Your task to perform on an android device: check data usage Image 0: 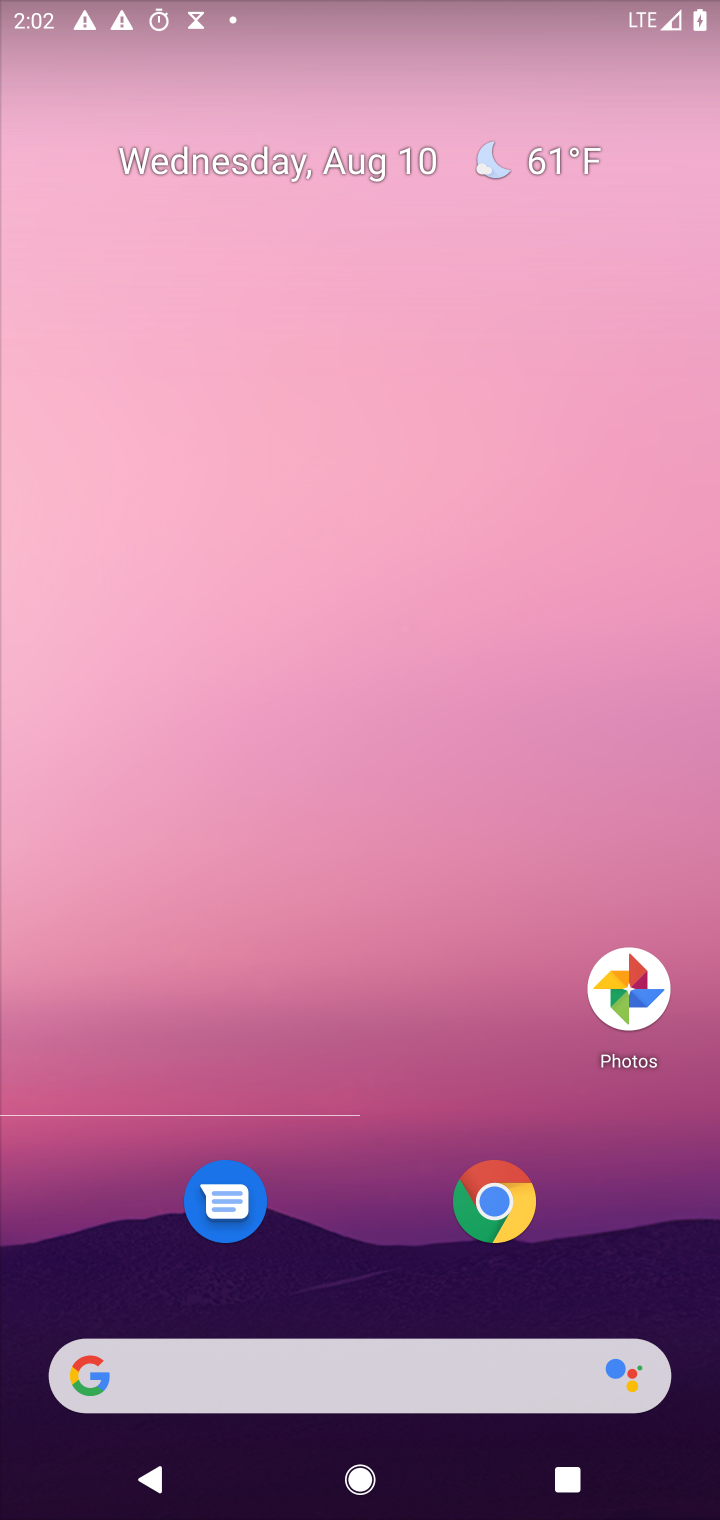
Step 0: press home button
Your task to perform on an android device: check data usage Image 1: 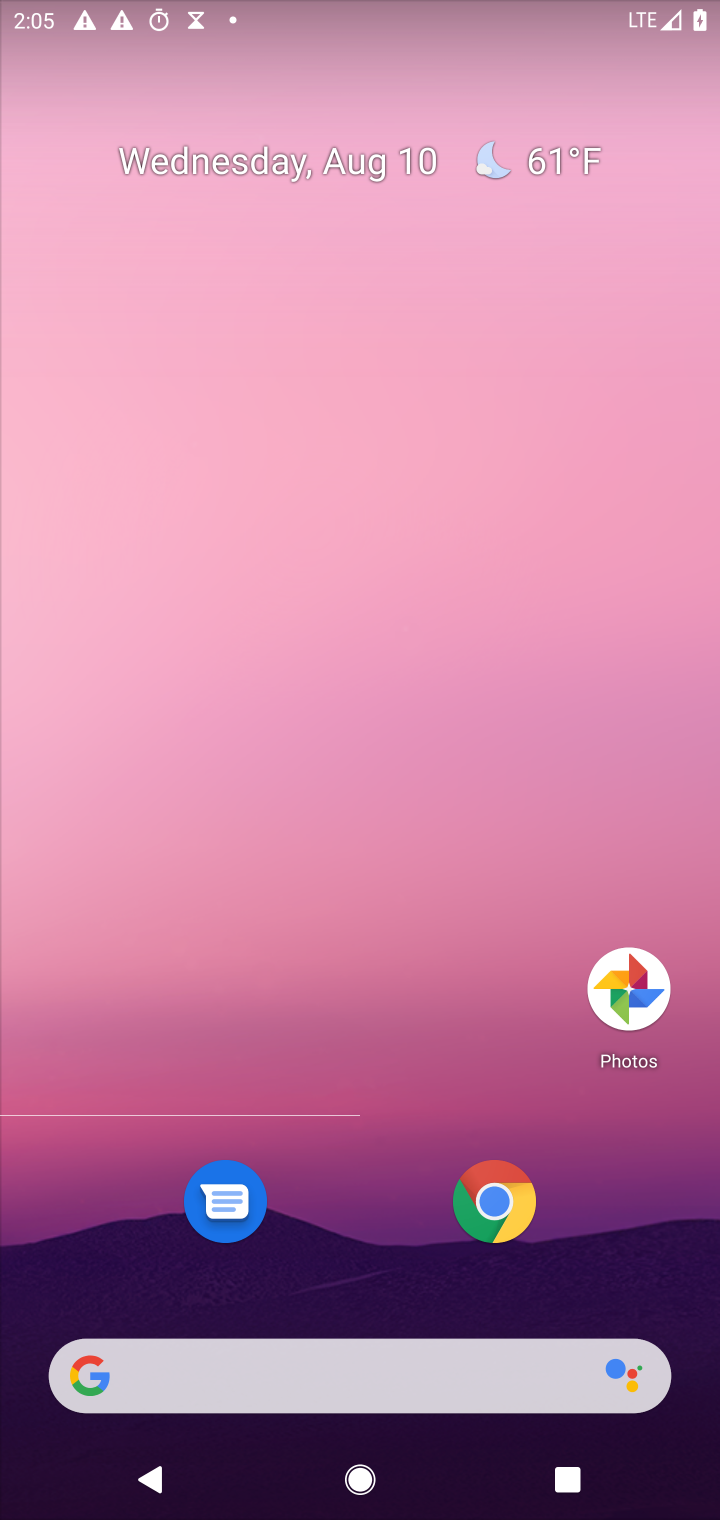
Step 1: drag from (276, 1060) to (144, 80)
Your task to perform on an android device: check data usage Image 2: 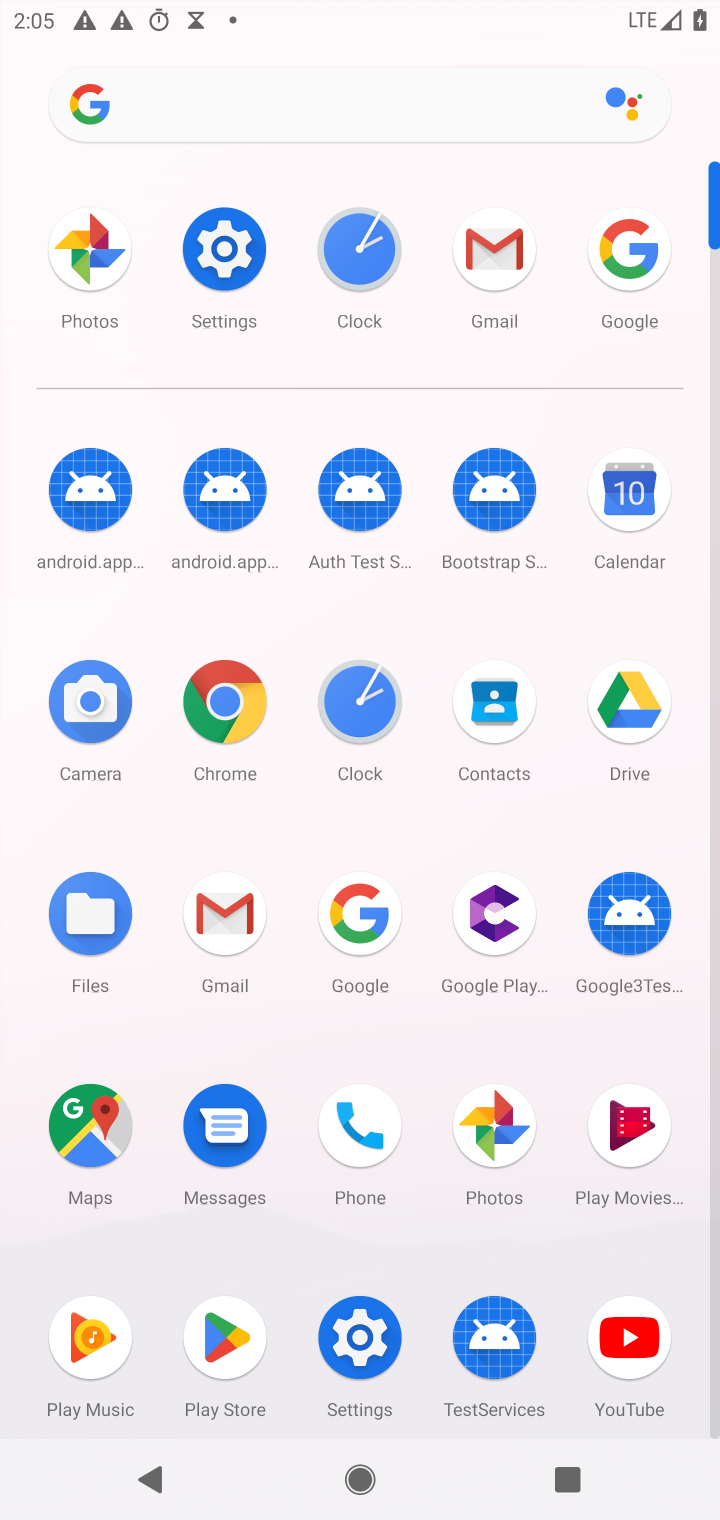
Step 2: click (224, 296)
Your task to perform on an android device: check data usage Image 3: 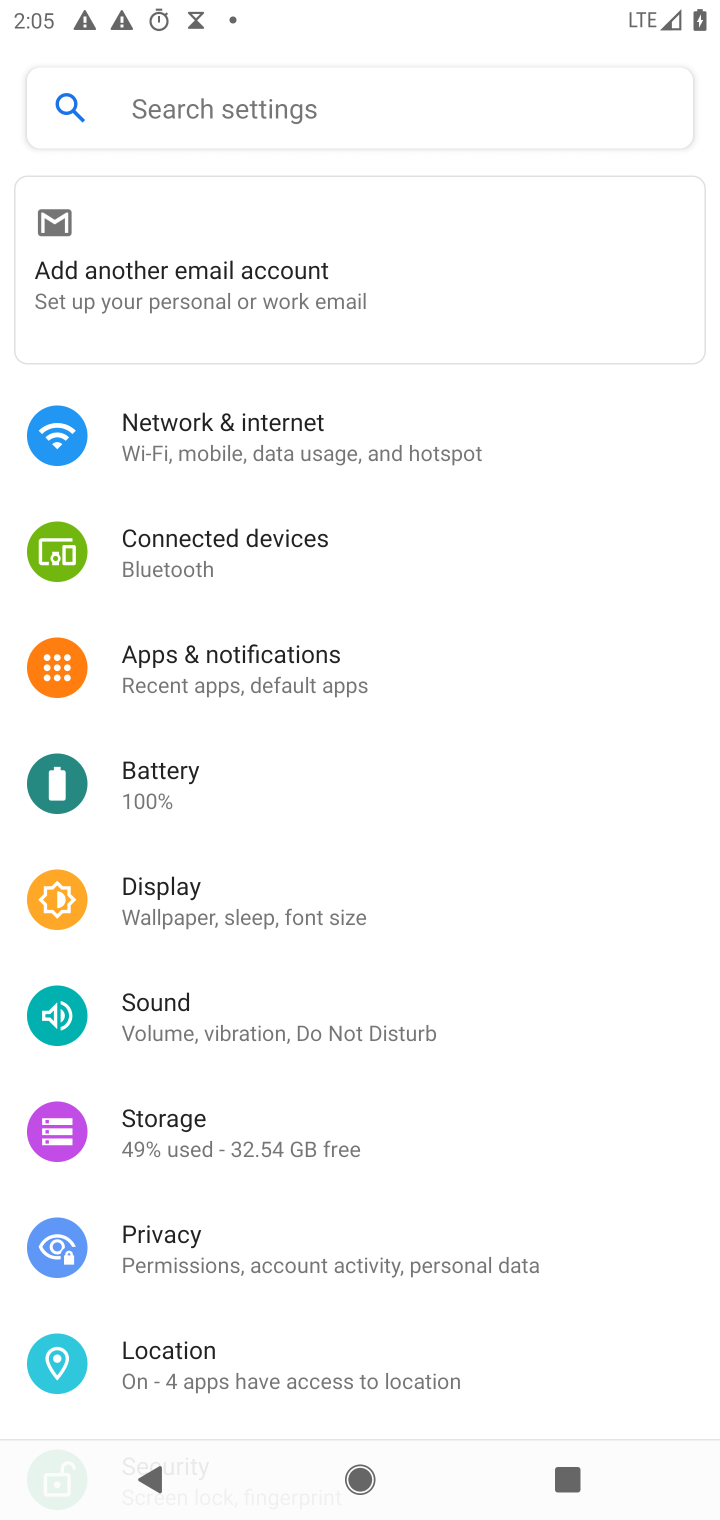
Step 3: click (244, 439)
Your task to perform on an android device: check data usage Image 4: 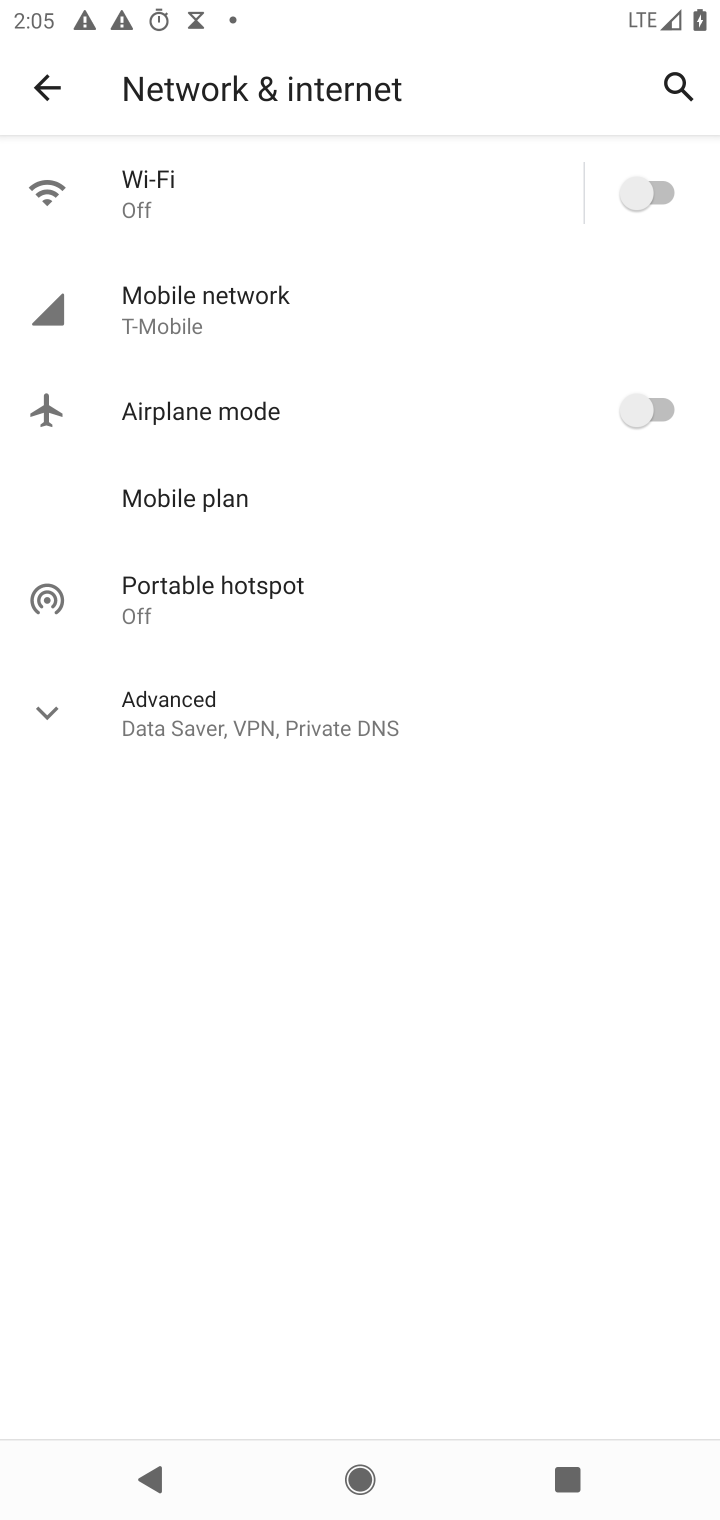
Step 4: click (214, 309)
Your task to perform on an android device: check data usage Image 5: 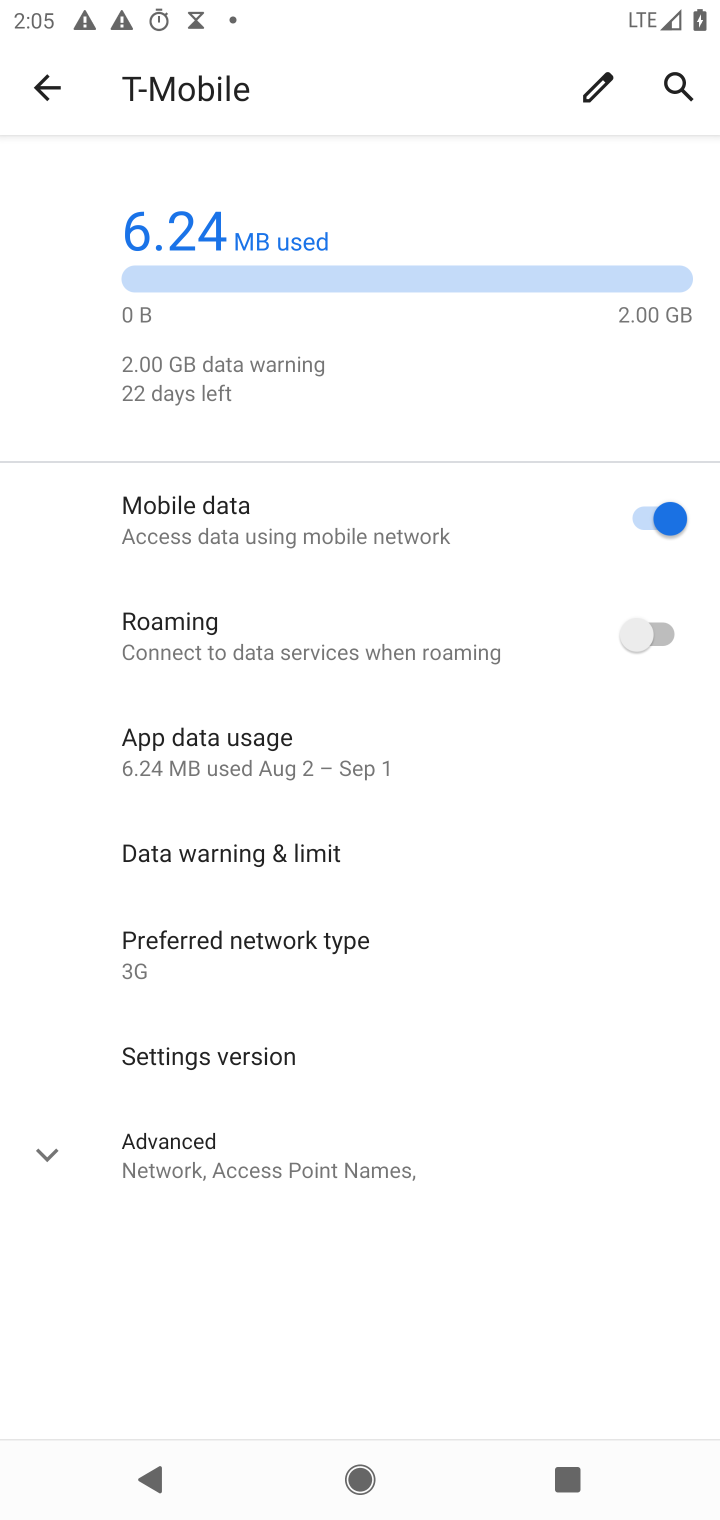
Step 5: click (200, 749)
Your task to perform on an android device: check data usage Image 6: 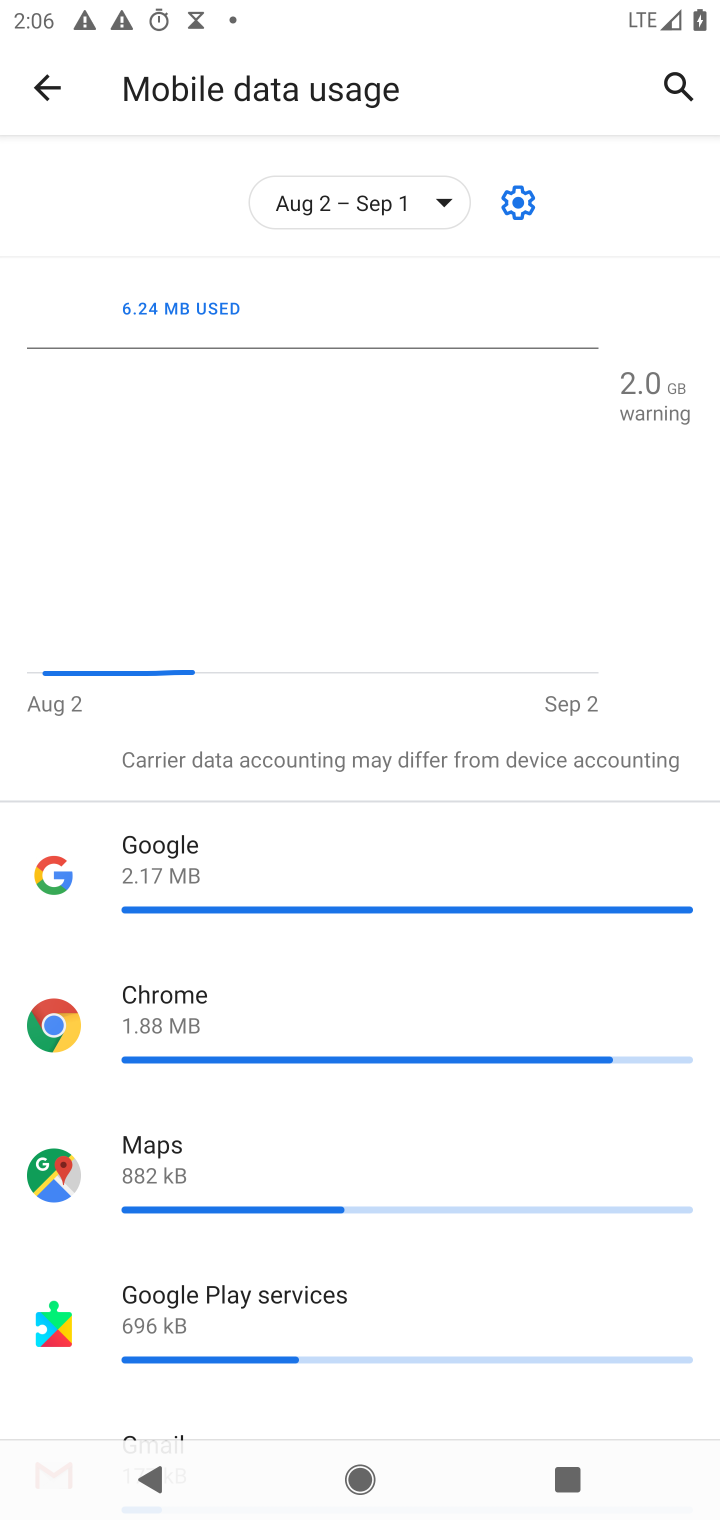
Step 6: task complete